Your task to perform on an android device: turn pop-ups on in chrome Image 0: 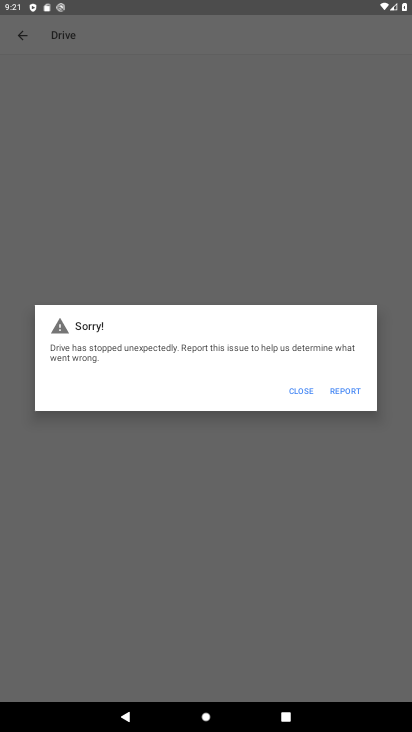
Step 0: press home button
Your task to perform on an android device: turn pop-ups on in chrome Image 1: 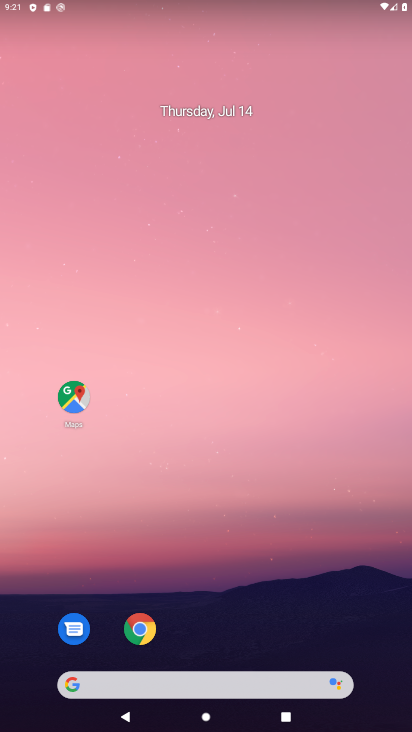
Step 1: click (144, 632)
Your task to perform on an android device: turn pop-ups on in chrome Image 2: 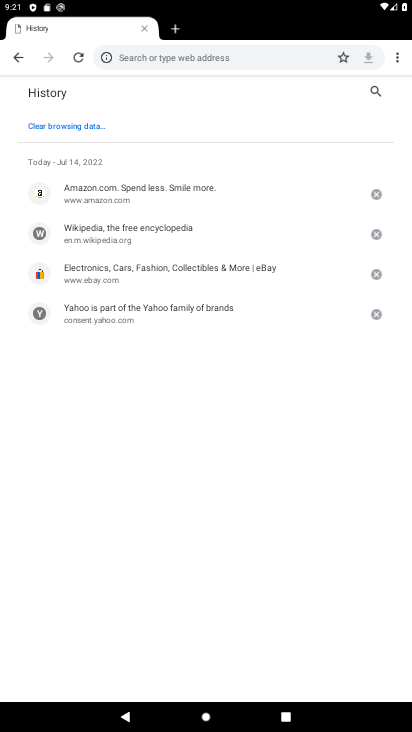
Step 2: click (390, 61)
Your task to perform on an android device: turn pop-ups on in chrome Image 3: 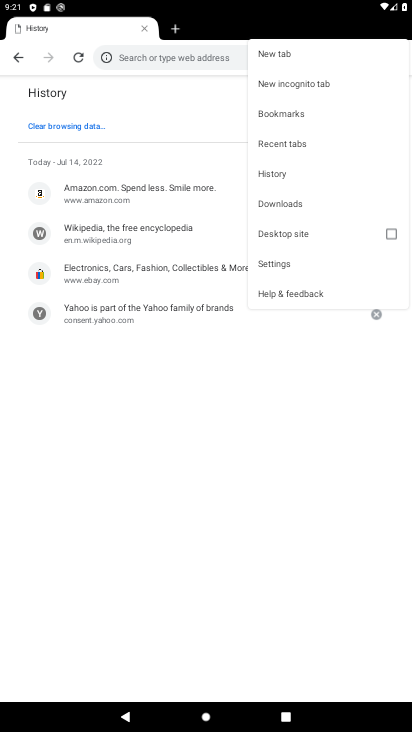
Step 3: click (279, 263)
Your task to perform on an android device: turn pop-ups on in chrome Image 4: 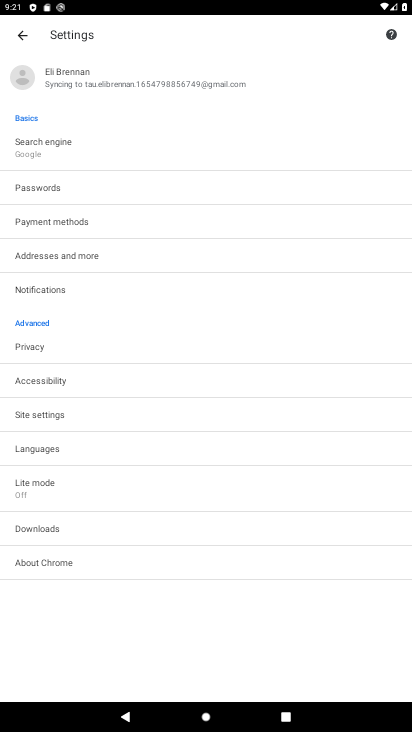
Step 4: click (41, 422)
Your task to perform on an android device: turn pop-ups on in chrome Image 5: 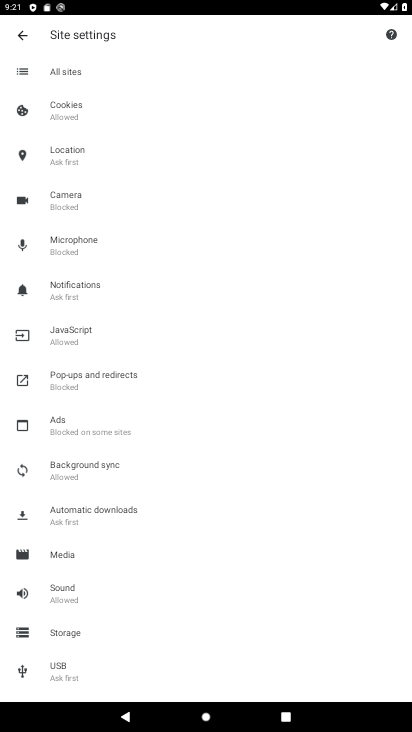
Step 5: click (87, 387)
Your task to perform on an android device: turn pop-ups on in chrome Image 6: 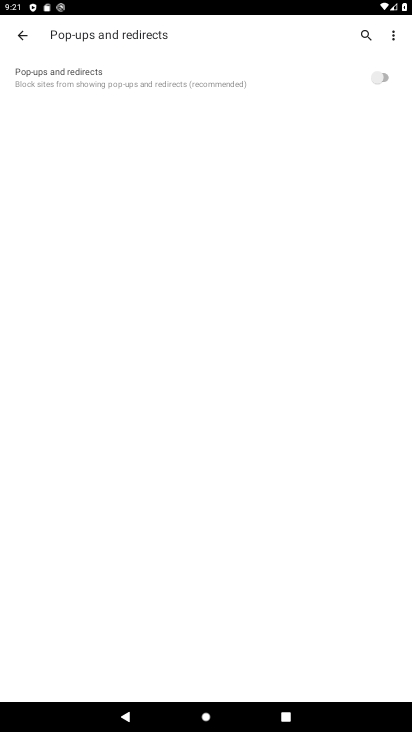
Step 6: click (385, 81)
Your task to perform on an android device: turn pop-ups on in chrome Image 7: 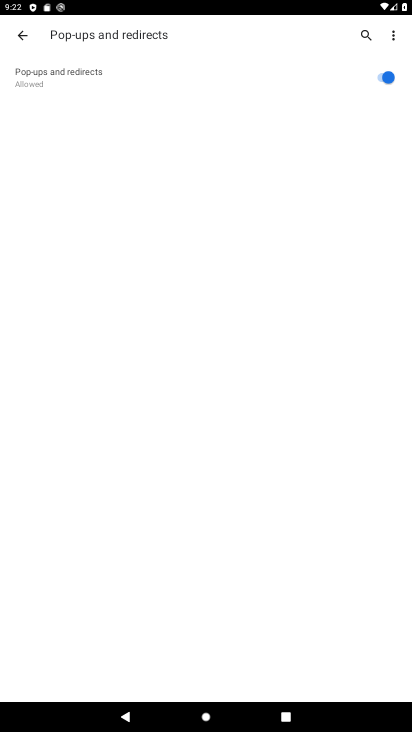
Step 7: task complete